Your task to perform on an android device: change the clock display to show seconds Image 0: 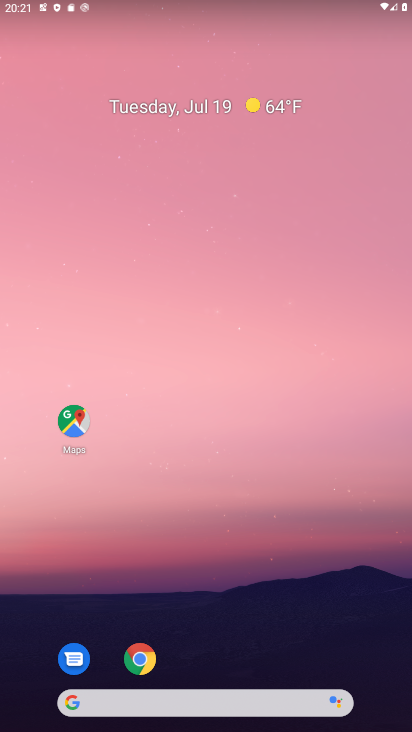
Step 0: drag from (273, 659) to (223, 28)
Your task to perform on an android device: change the clock display to show seconds Image 1: 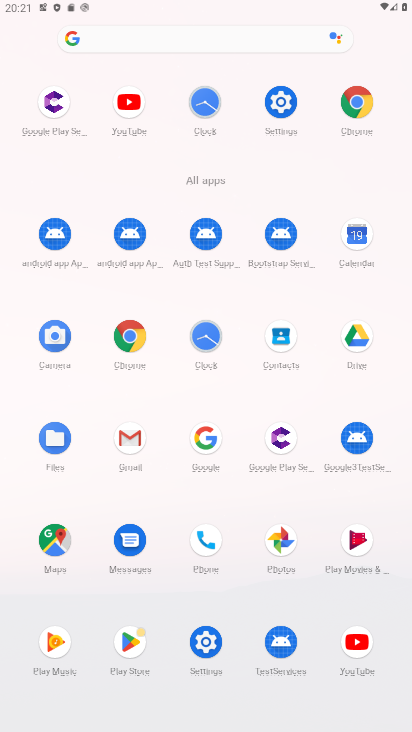
Step 1: click (202, 350)
Your task to perform on an android device: change the clock display to show seconds Image 2: 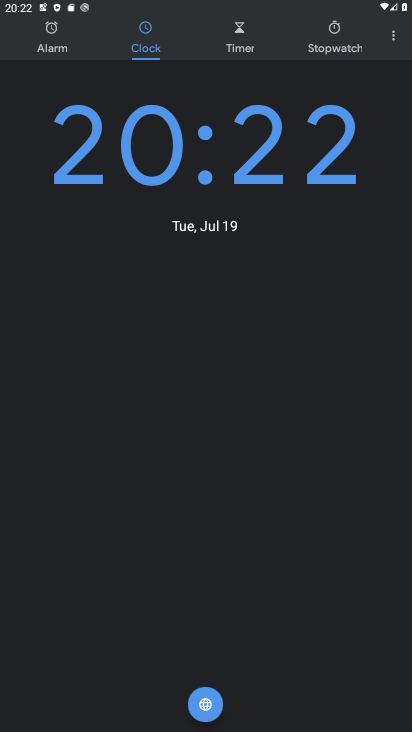
Step 2: click (398, 41)
Your task to perform on an android device: change the clock display to show seconds Image 3: 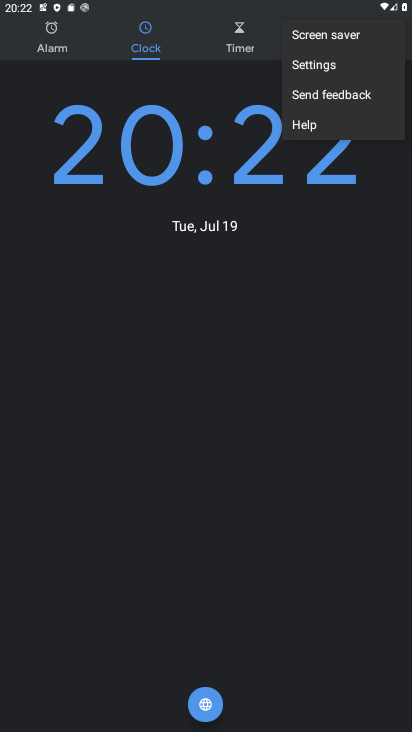
Step 3: click (373, 64)
Your task to perform on an android device: change the clock display to show seconds Image 4: 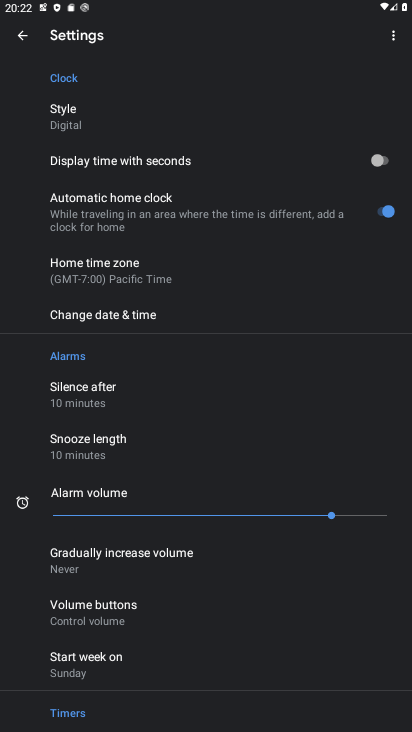
Step 4: click (387, 169)
Your task to perform on an android device: change the clock display to show seconds Image 5: 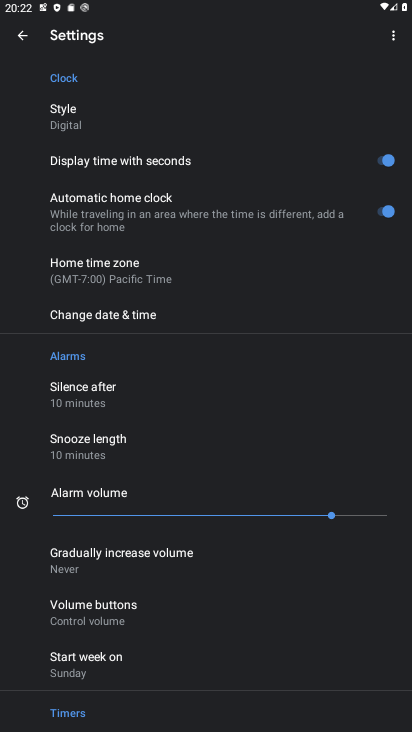
Step 5: task complete